Your task to perform on an android device: Open Chrome and go to settings Image 0: 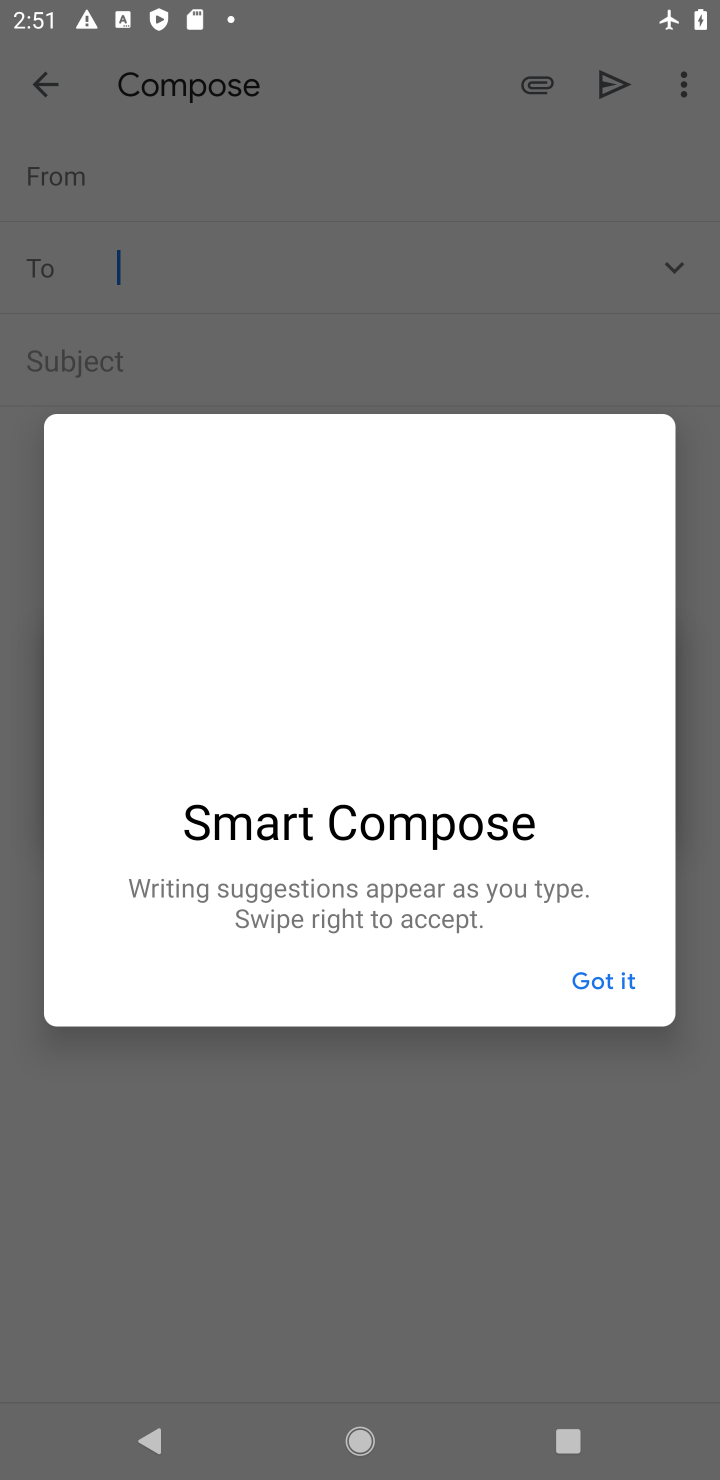
Step 0: press home button
Your task to perform on an android device: Open Chrome and go to settings Image 1: 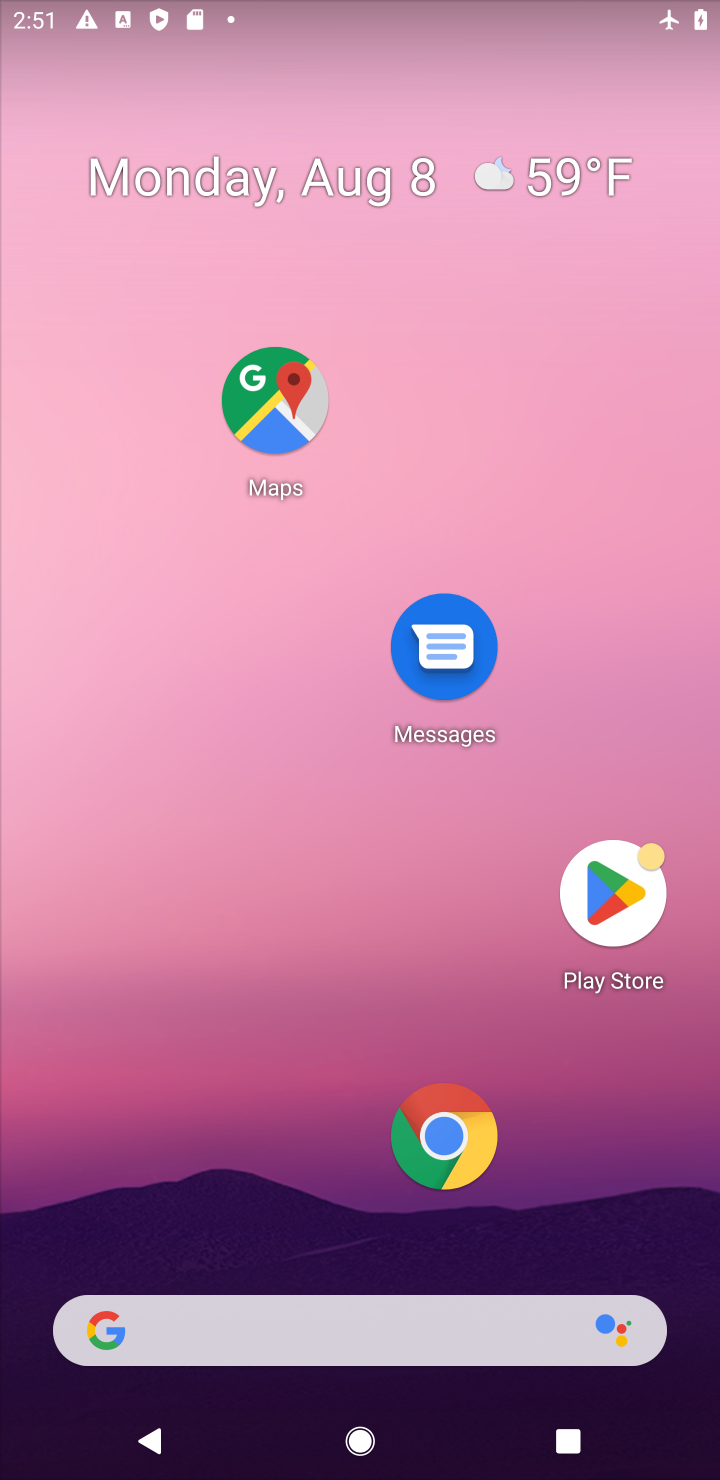
Step 1: click (458, 1117)
Your task to perform on an android device: Open Chrome and go to settings Image 2: 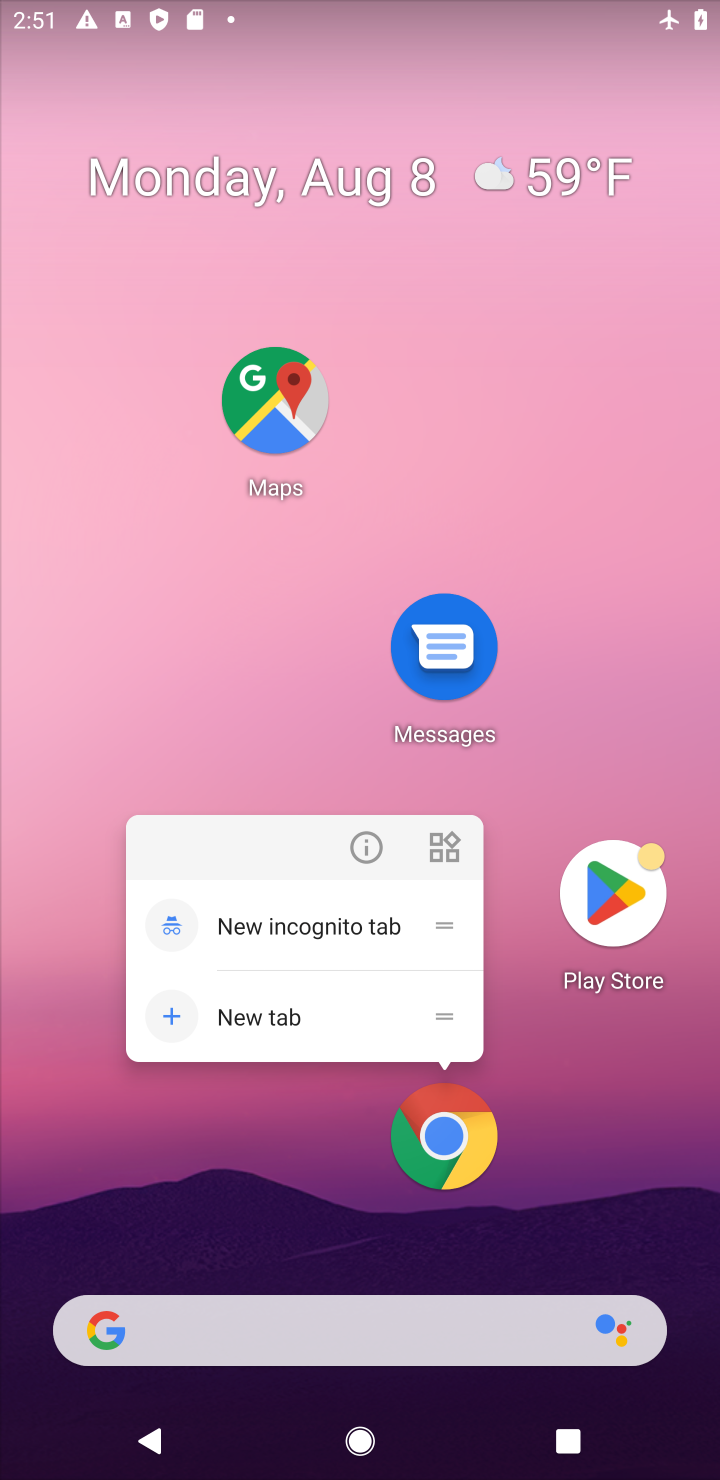
Step 2: click (458, 1117)
Your task to perform on an android device: Open Chrome and go to settings Image 3: 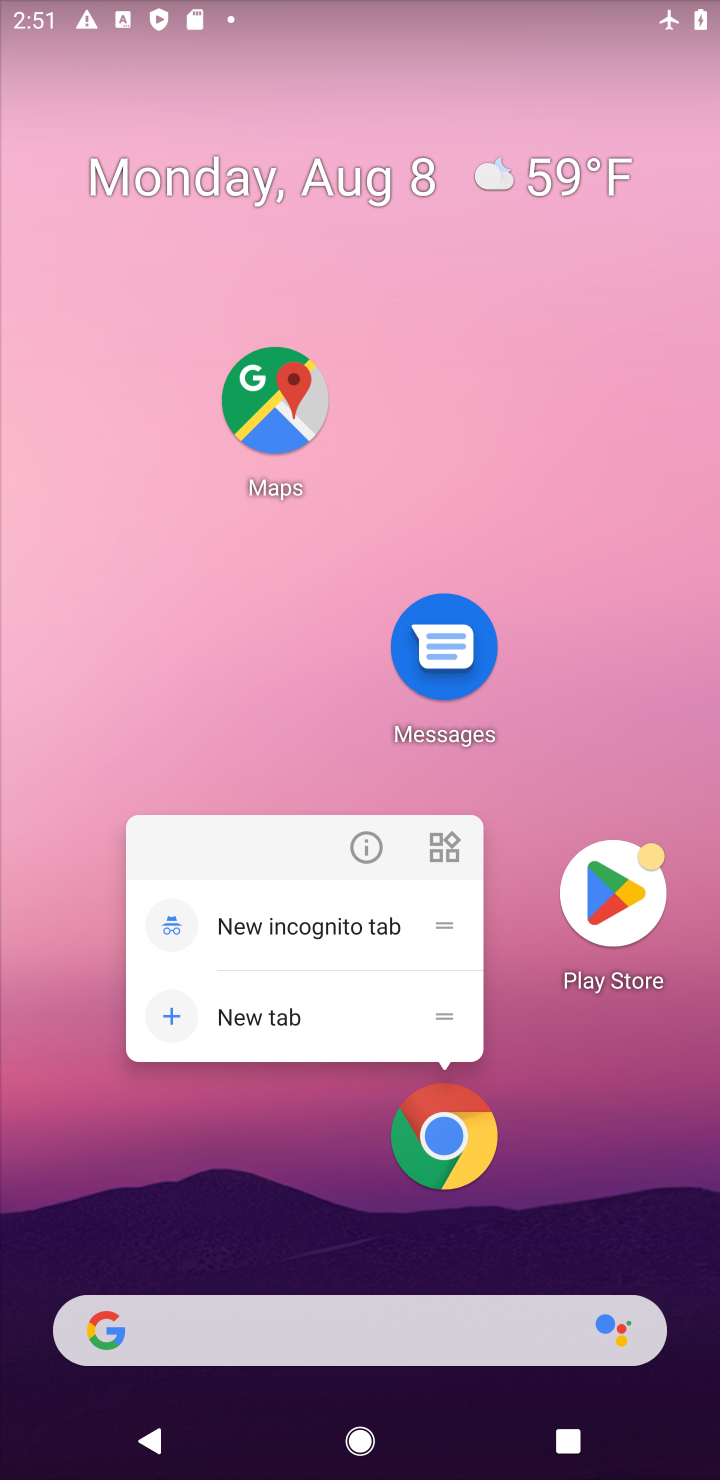
Step 3: click (458, 1117)
Your task to perform on an android device: Open Chrome and go to settings Image 4: 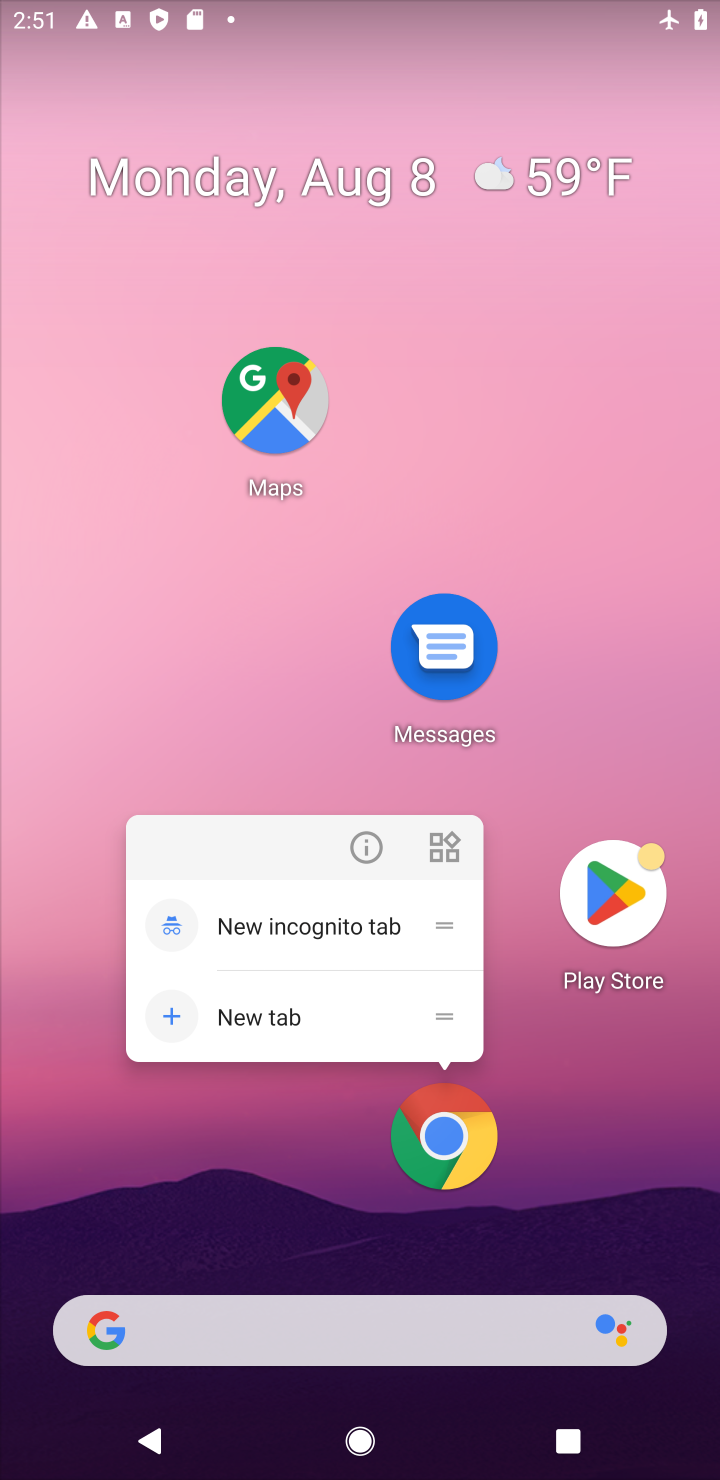
Step 4: task complete